Your task to perform on an android device: Open Google Maps Image 0: 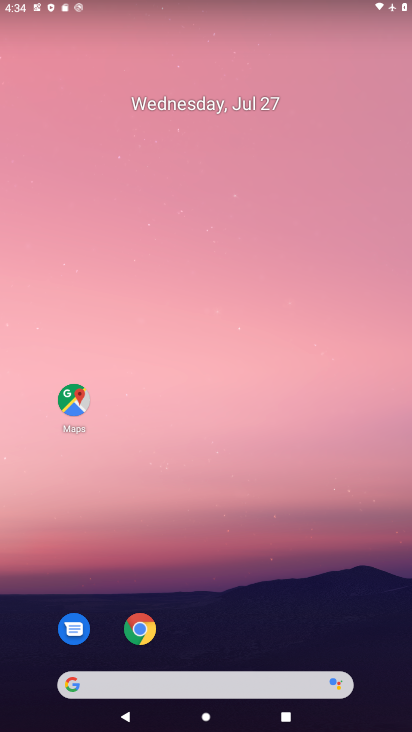
Step 0: click (57, 407)
Your task to perform on an android device: Open Google Maps Image 1: 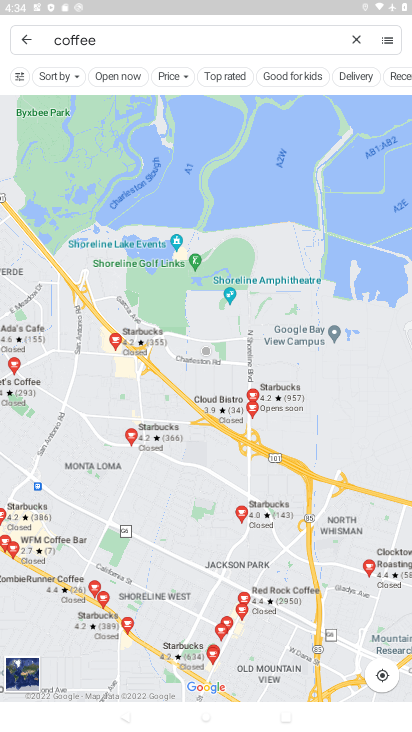
Step 1: task complete